Your task to perform on an android device: What's on the menu at In-N-Out? Image 0: 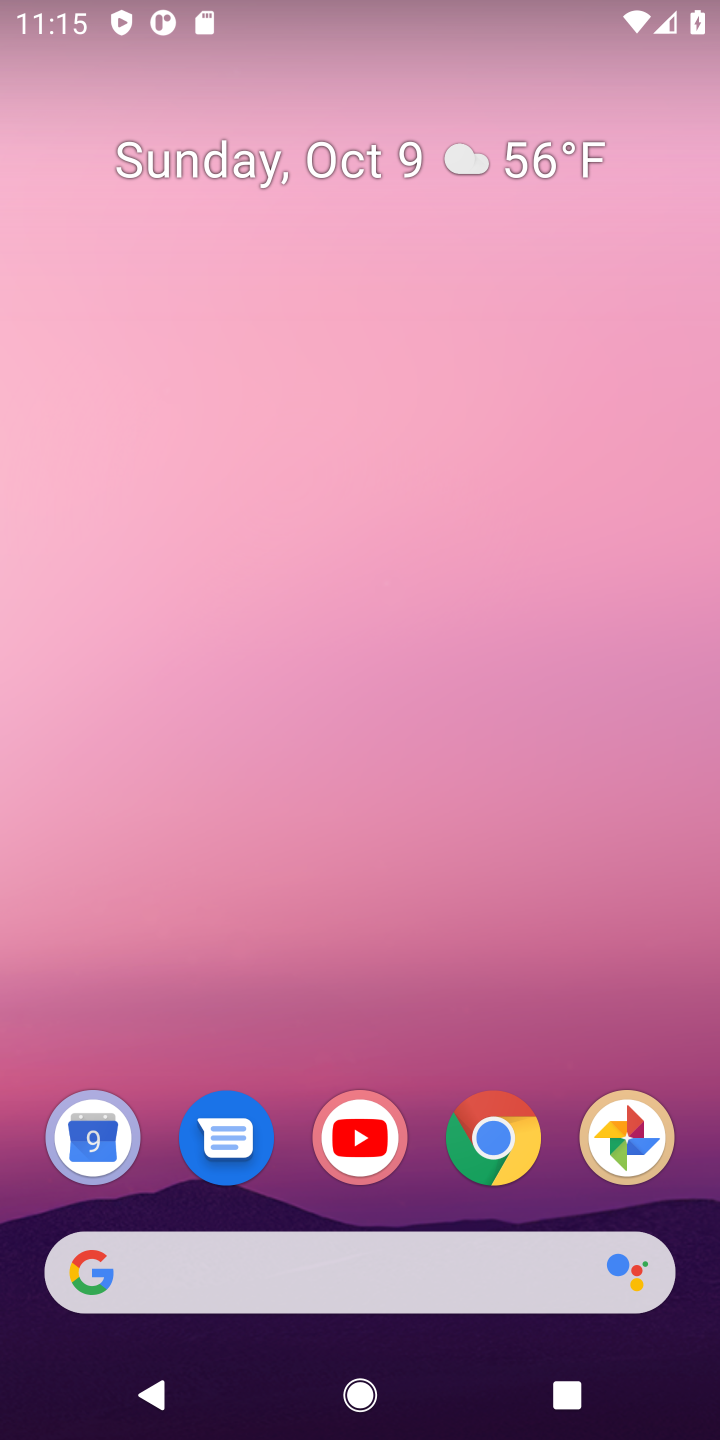
Step 0: drag from (452, 909) to (483, 89)
Your task to perform on an android device: What's on the menu at In-N-Out? Image 1: 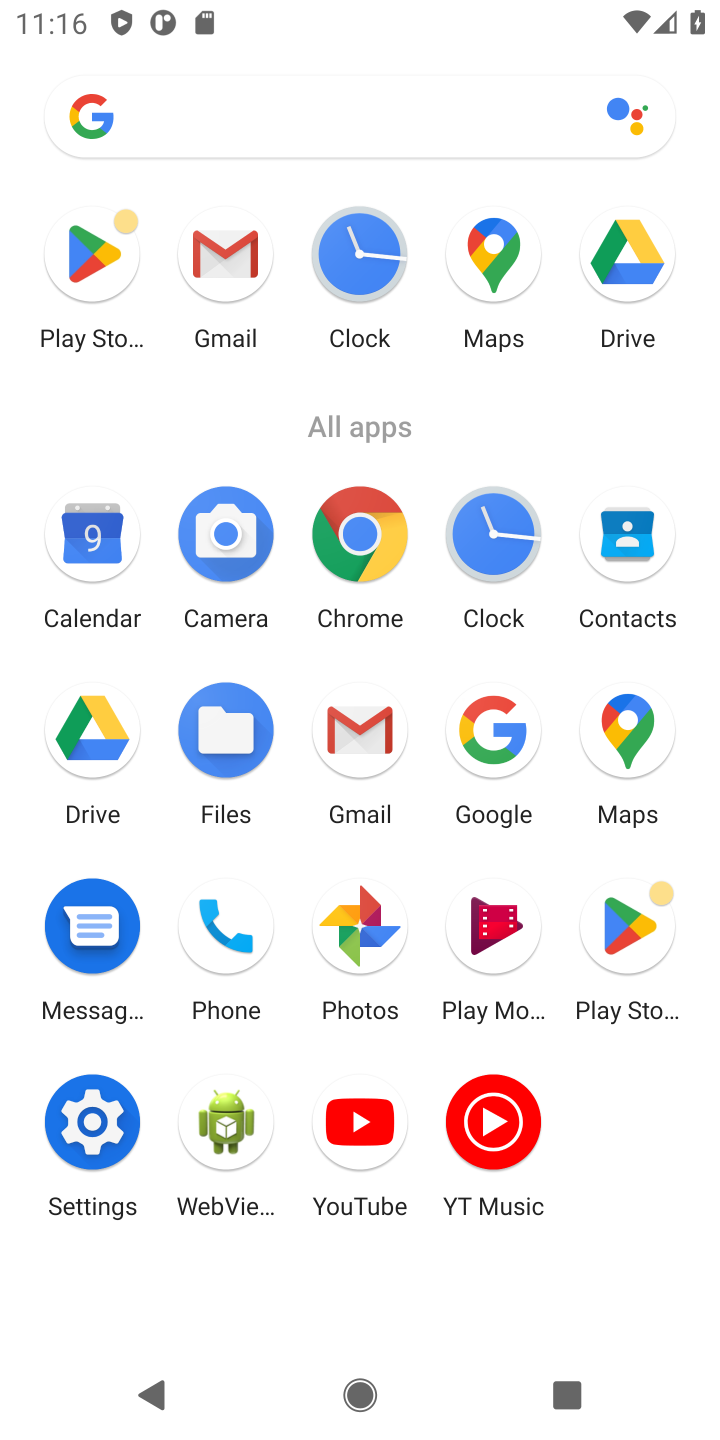
Step 1: click (367, 543)
Your task to perform on an android device: What's on the menu at In-N-Out? Image 2: 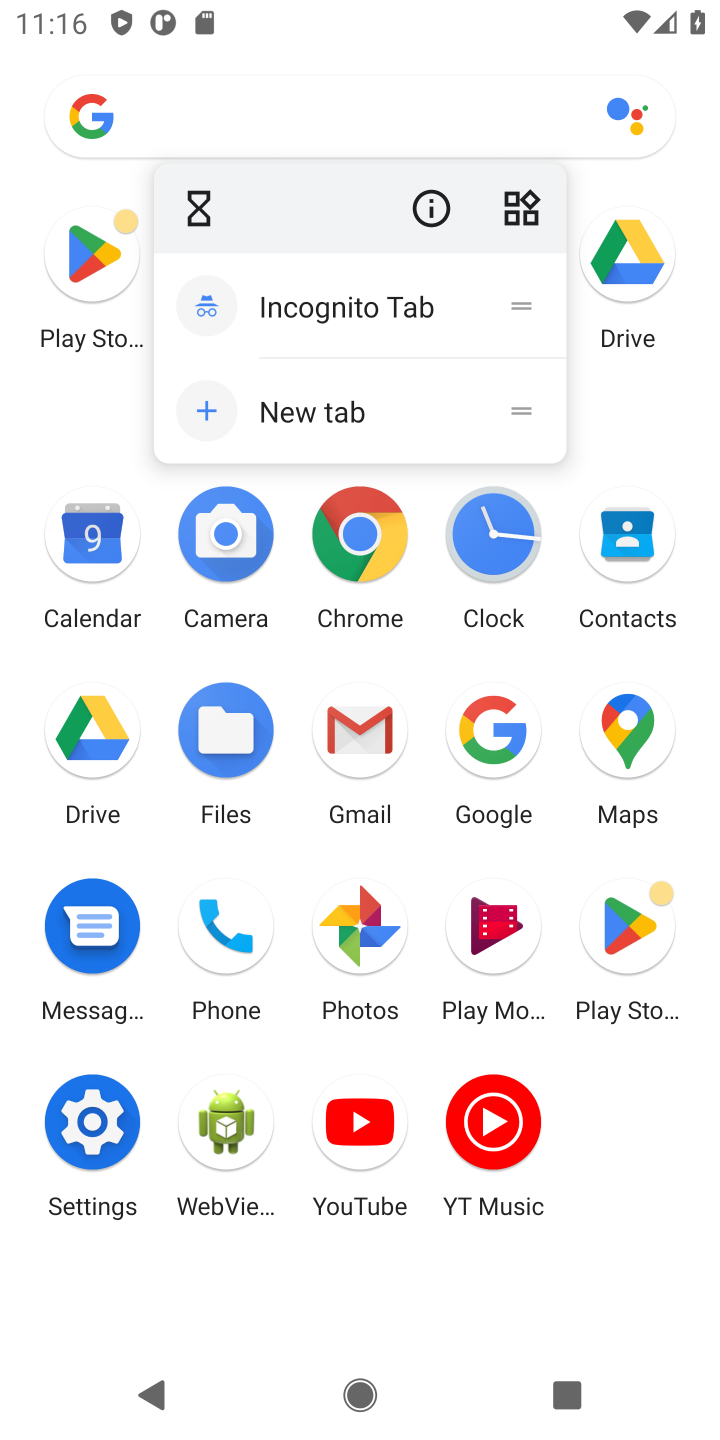
Step 2: click (373, 512)
Your task to perform on an android device: What's on the menu at In-N-Out? Image 3: 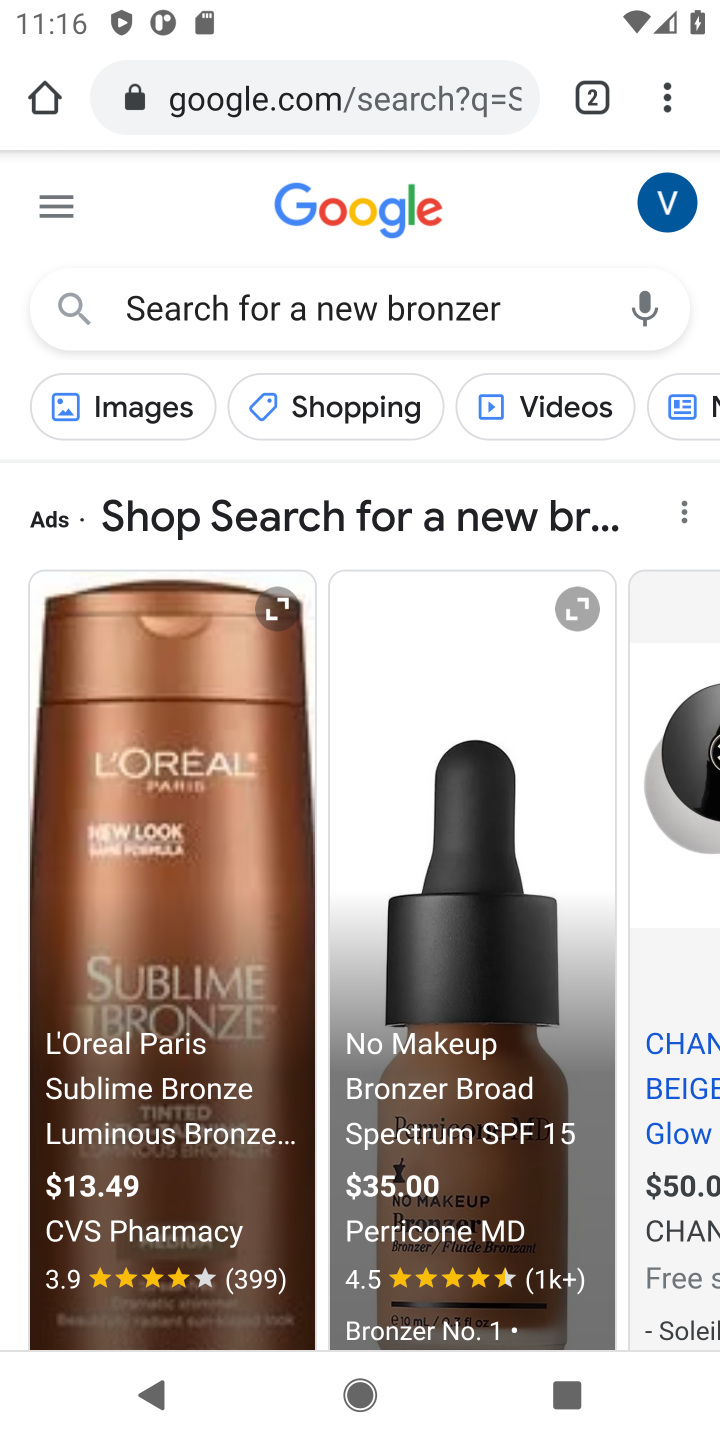
Step 3: click (269, 105)
Your task to perform on an android device: What's on the menu at In-N-Out? Image 4: 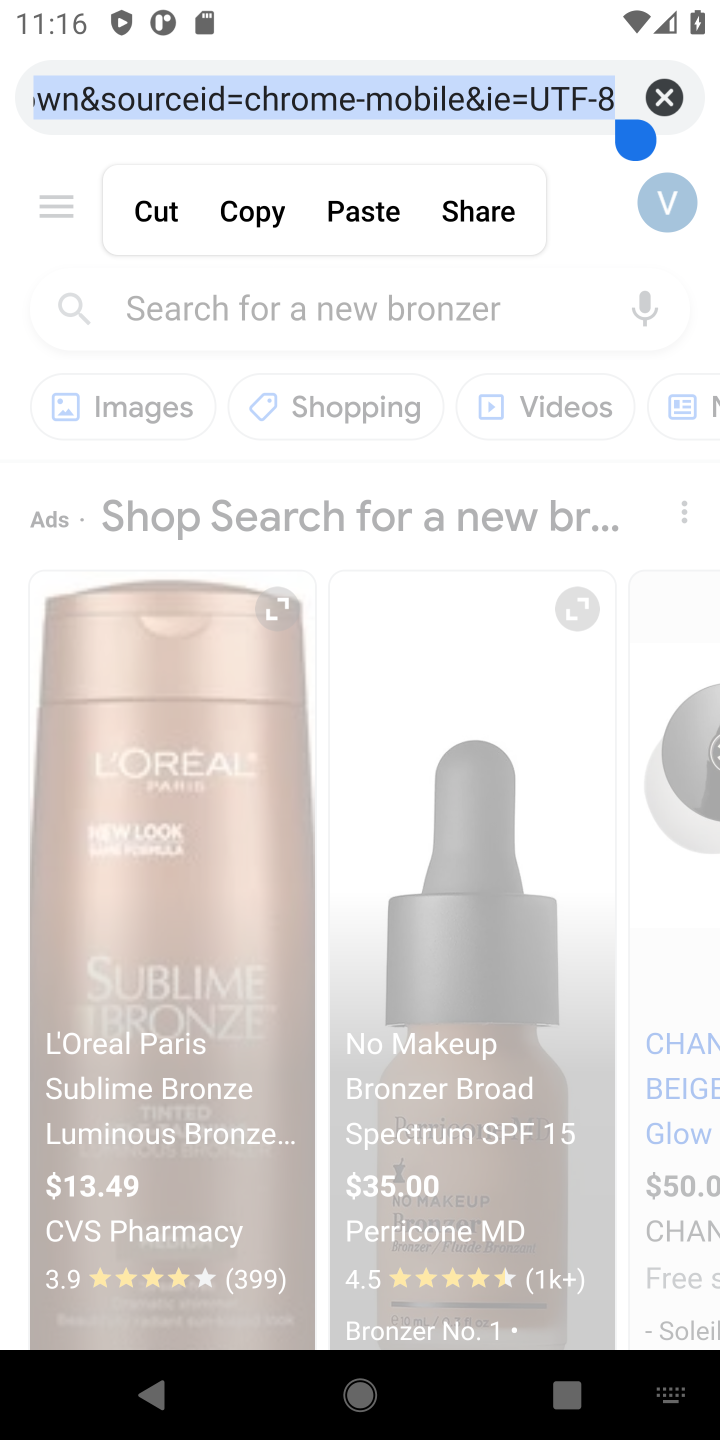
Step 4: click (663, 107)
Your task to perform on an android device: What's on the menu at In-N-Out? Image 5: 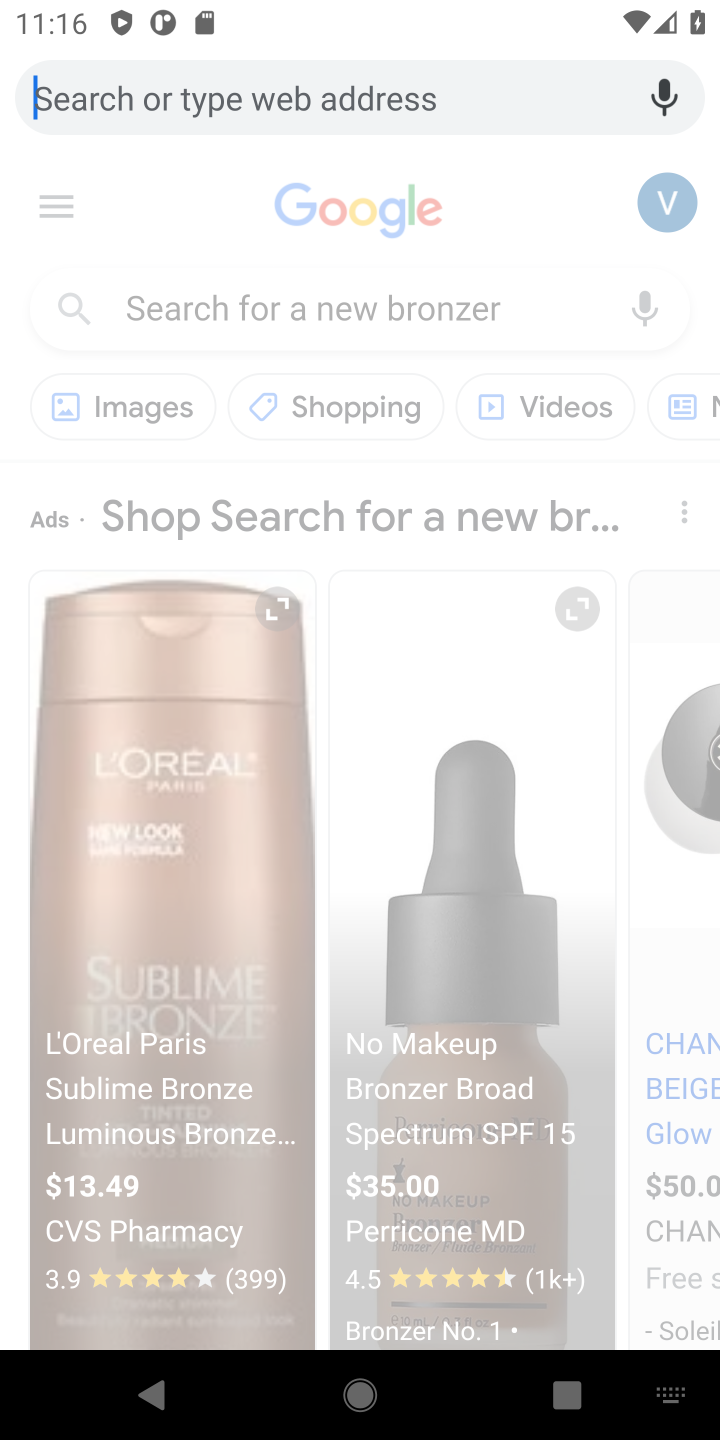
Step 5: type "What's on the menu at In-N-Out?"
Your task to perform on an android device: What's on the menu at In-N-Out? Image 6: 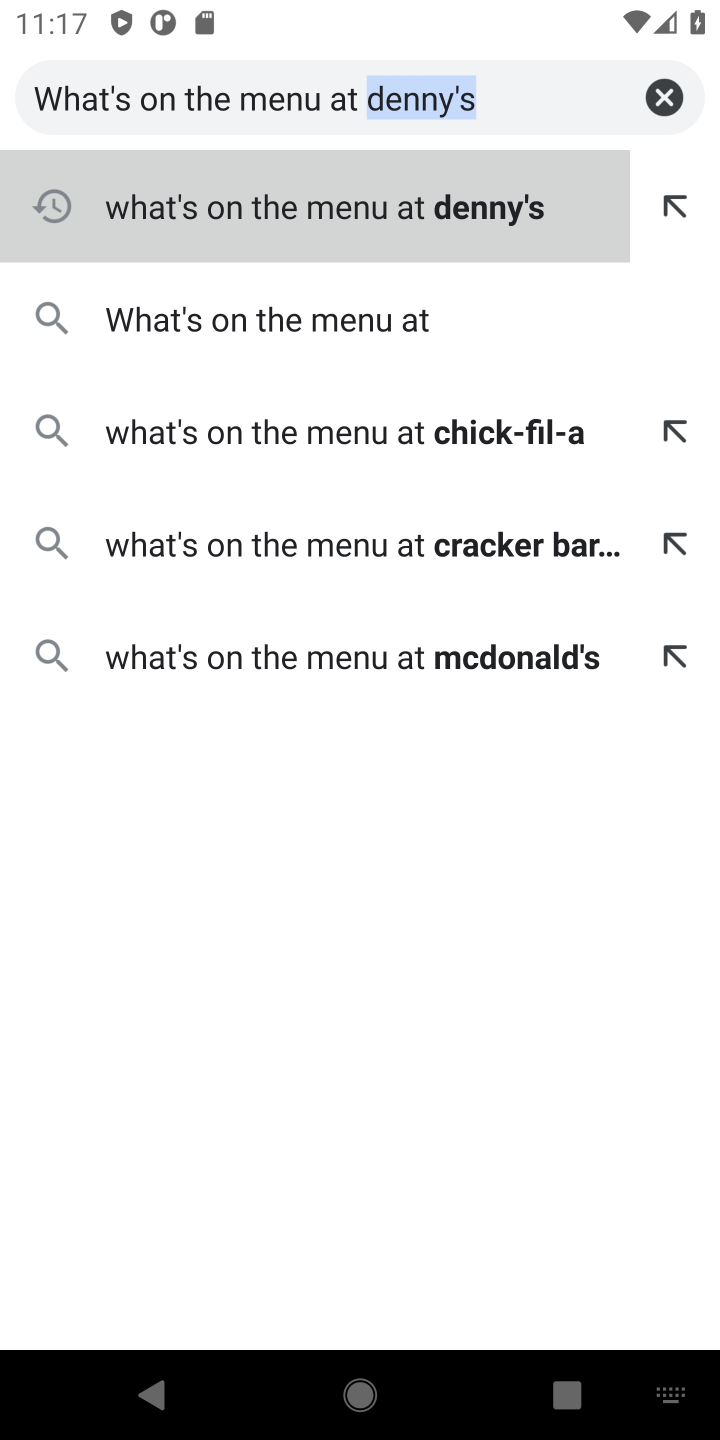
Step 6: click (370, 214)
Your task to perform on an android device: What's on the menu at In-N-Out? Image 7: 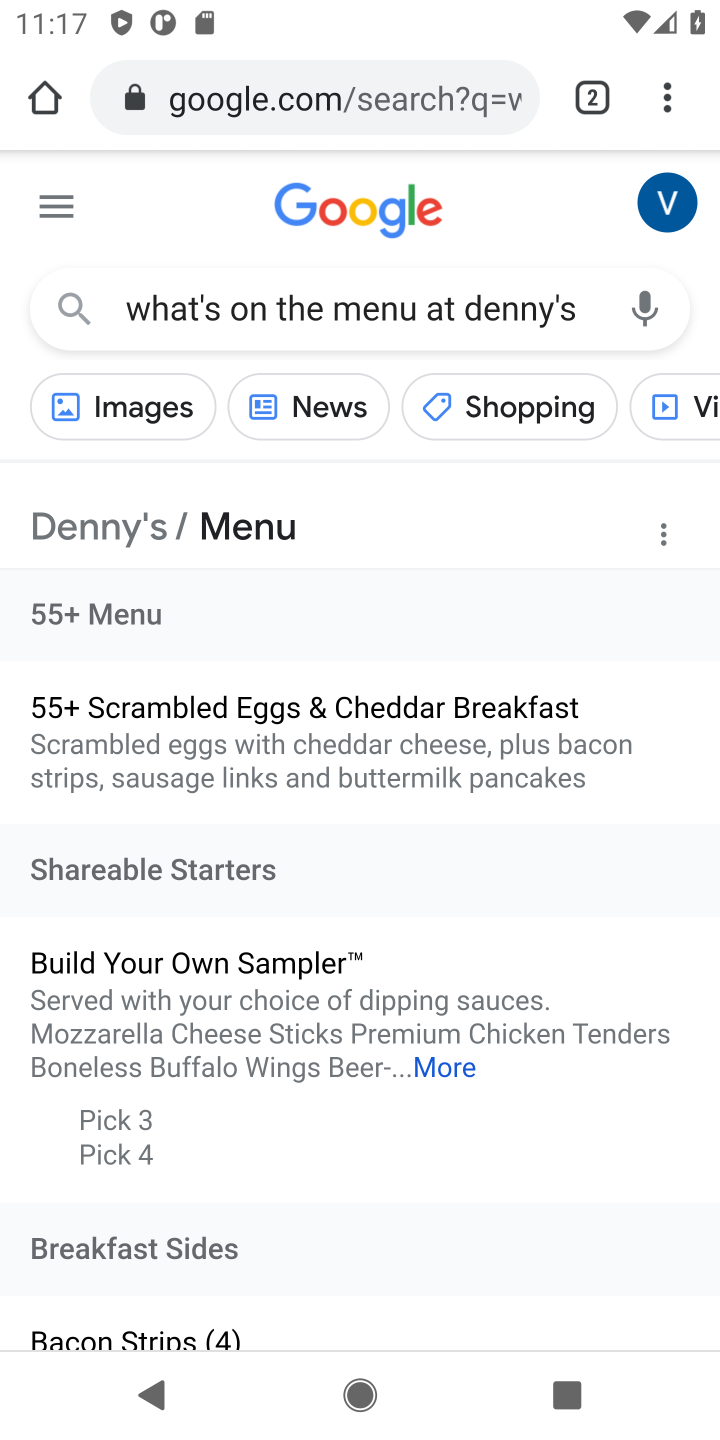
Step 7: task complete